Your task to perform on an android device: Go to Wikipedia Image 0: 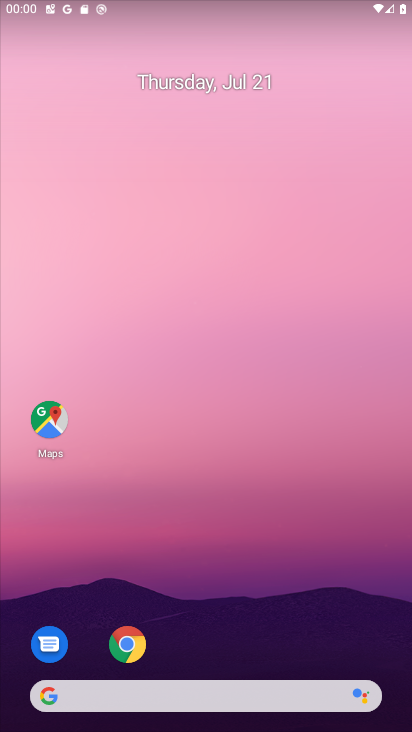
Step 0: click (201, 695)
Your task to perform on an android device: Go to Wikipedia Image 1: 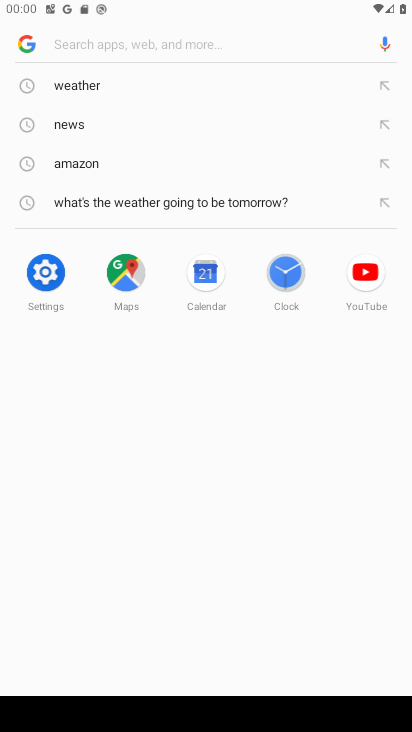
Step 1: type "wikipedia"
Your task to perform on an android device: Go to Wikipedia Image 2: 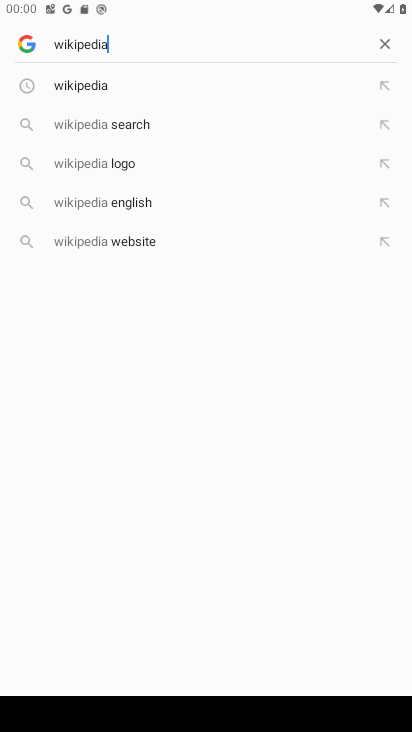
Step 2: click (145, 77)
Your task to perform on an android device: Go to Wikipedia Image 3: 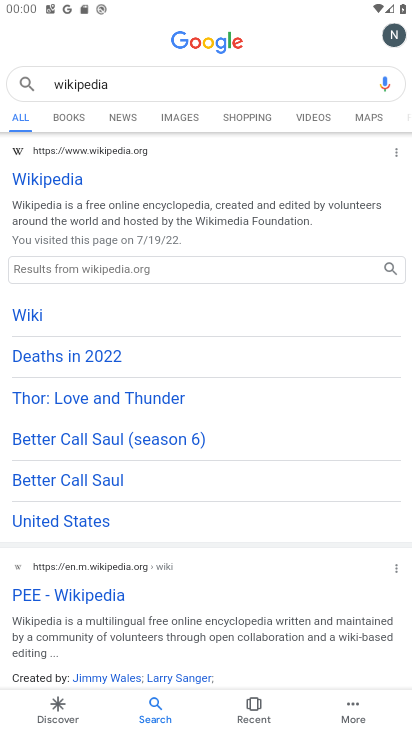
Step 3: click (39, 174)
Your task to perform on an android device: Go to Wikipedia Image 4: 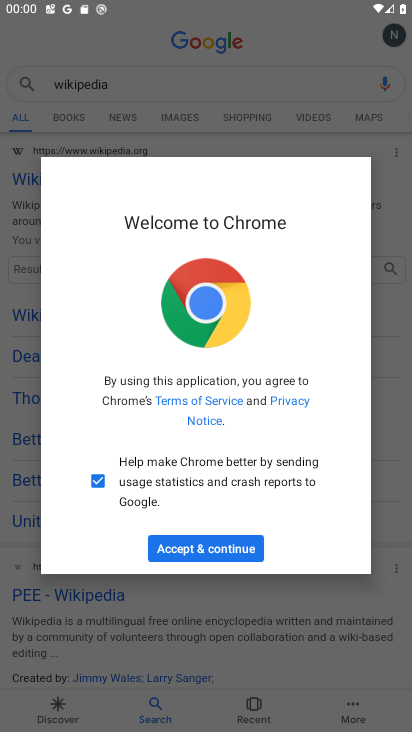
Step 4: click (224, 551)
Your task to perform on an android device: Go to Wikipedia Image 5: 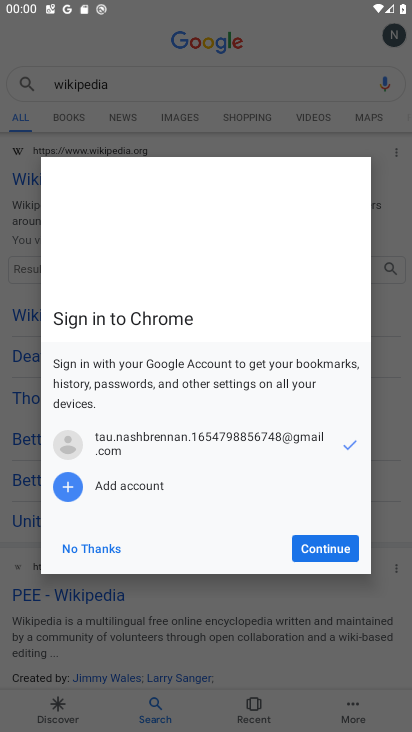
Step 5: click (349, 551)
Your task to perform on an android device: Go to Wikipedia Image 6: 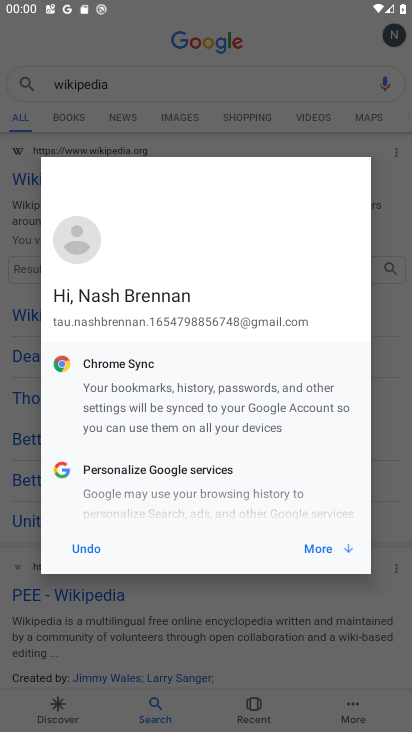
Step 6: click (329, 552)
Your task to perform on an android device: Go to Wikipedia Image 7: 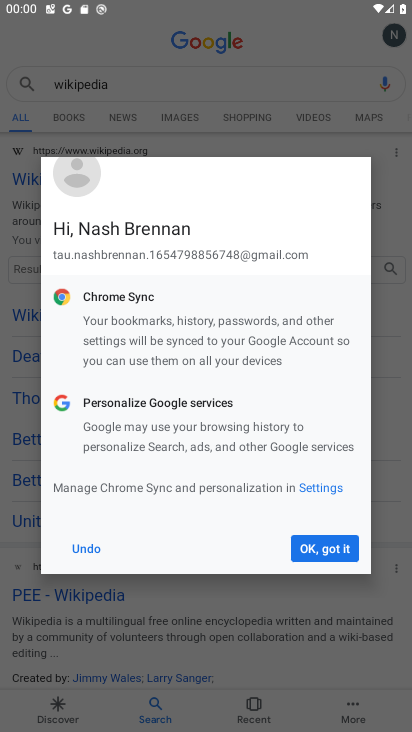
Step 7: click (329, 552)
Your task to perform on an android device: Go to Wikipedia Image 8: 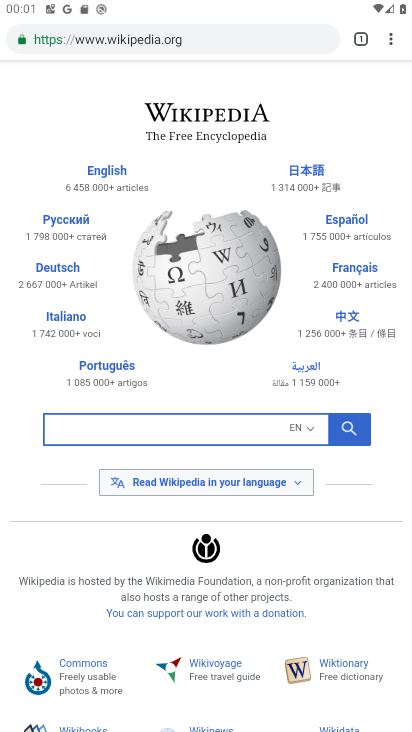
Step 8: task complete